Your task to perform on an android device: clear history in the chrome app Image 0: 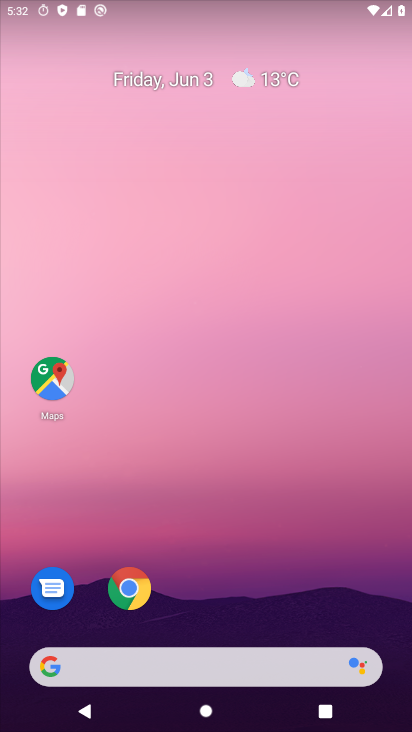
Step 0: drag from (226, 617) to (206, 245)
Your task to perform on an android device: clear history in the chrome app Image 1: 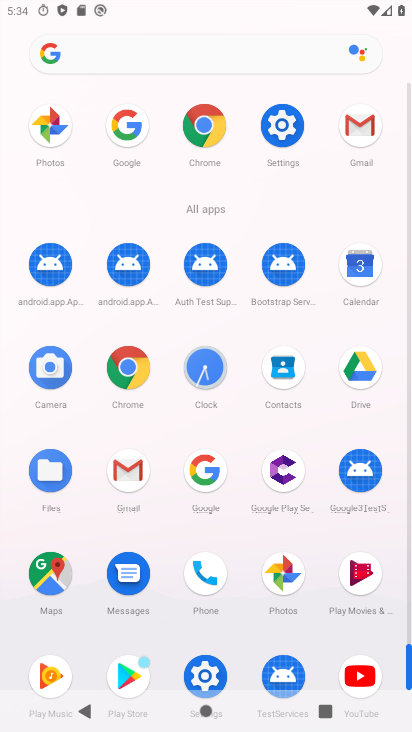
Step 1: click (125, 383)
Your task to perform on an android device: clear history in the chrome app Image 2: 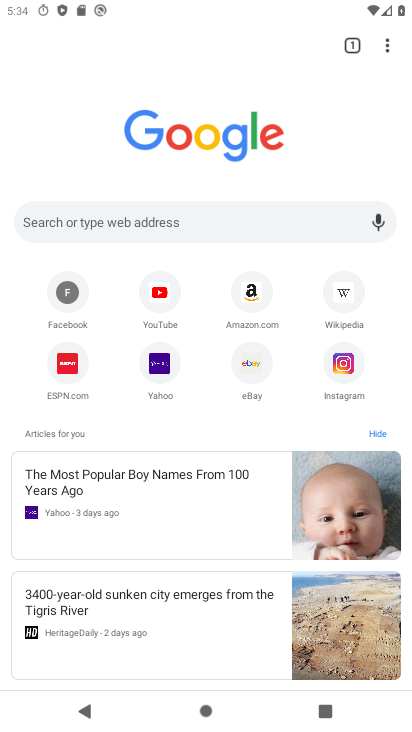
Step 2: click (388, 57)
Your task to perform on an android device: clear history in the chrome app Image 3: 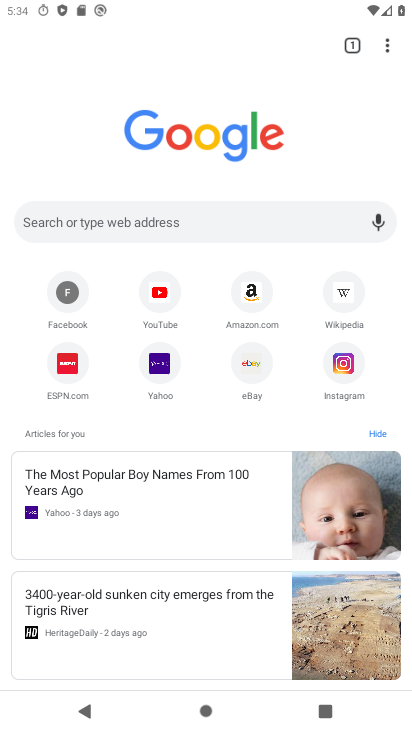
Step 3: click (385, 43)
Your task to perform on an android device: clear history in the chrome app Image 4: 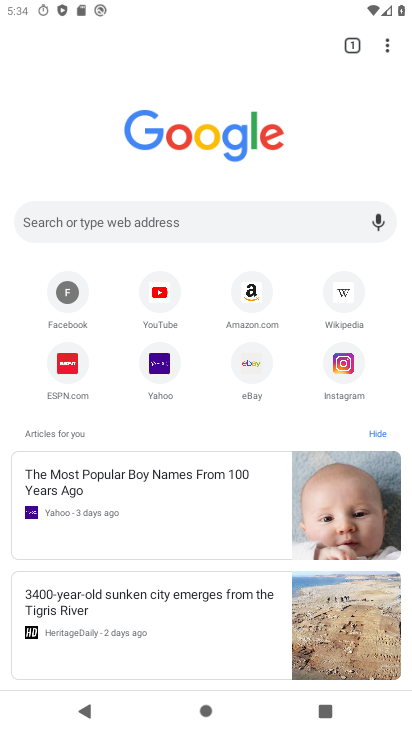
Step 4: click (383, 52)
Your task to perform on an android device: clear history in the chrome app Image 5: 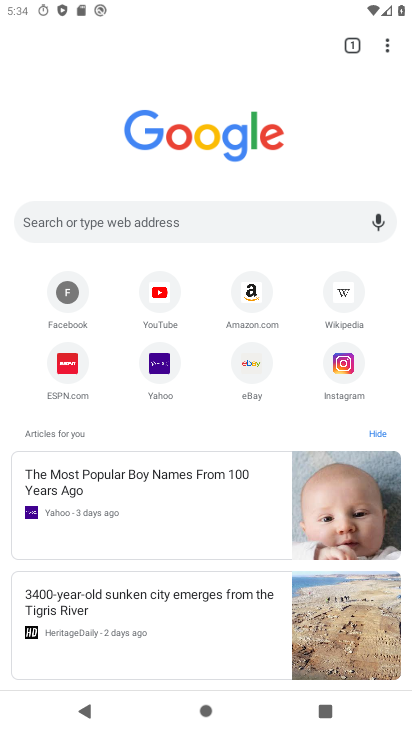
Step 5: click (387, 46)
Your task to perform on an android device: clear history in the chrome app Image 6: 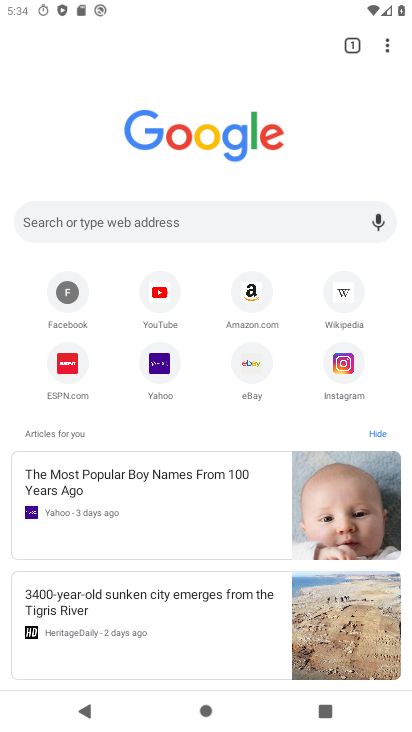
Step 6: click (392, 51)
Your task to perform on an android device: clear history in the chrome app Image 7: 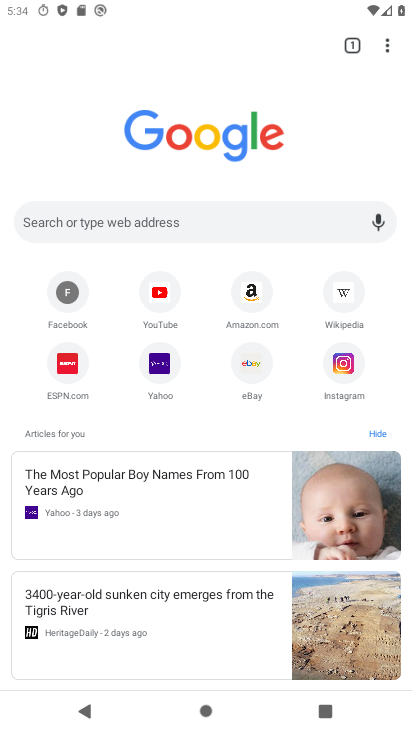
Step 7: click (391, 51)
Your task to perform on an android device: clear history in the chrome app Image 8: 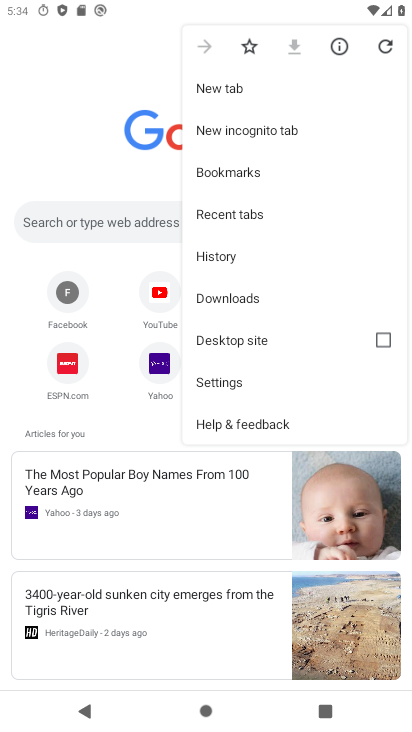
Step 8: click (241, 251)
Your task to perform on an android device: clear history in the chrome app Image 9: 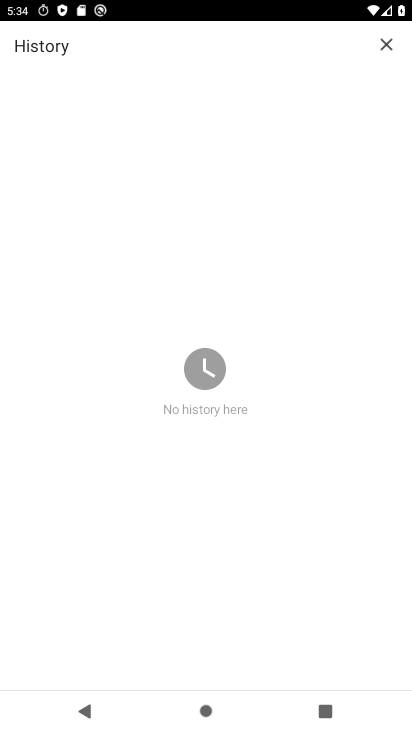
Step 9: task complete